Your task to perform on an android device: Open battery settings Image 0: 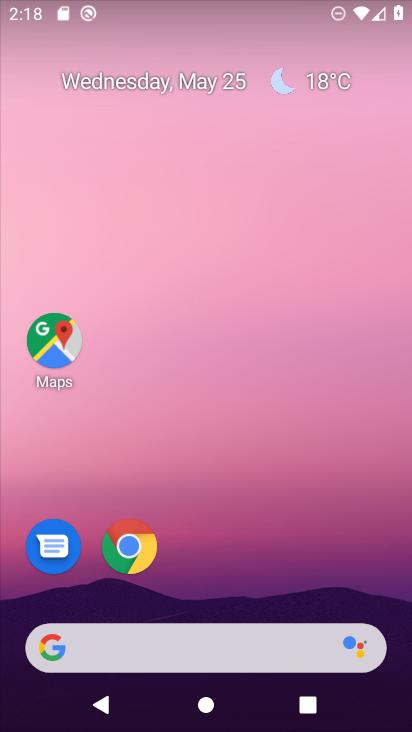
Step 0: drag from (214, 569) to (313, 8)
Your task to perform on an android device: Open battery settings Image 1: 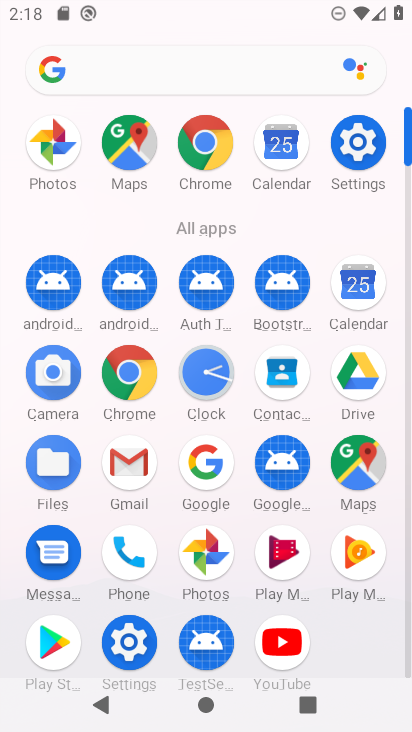
Step 1: click (115, 640)
Your task to perform on an android device: Open battery settings Image 2: 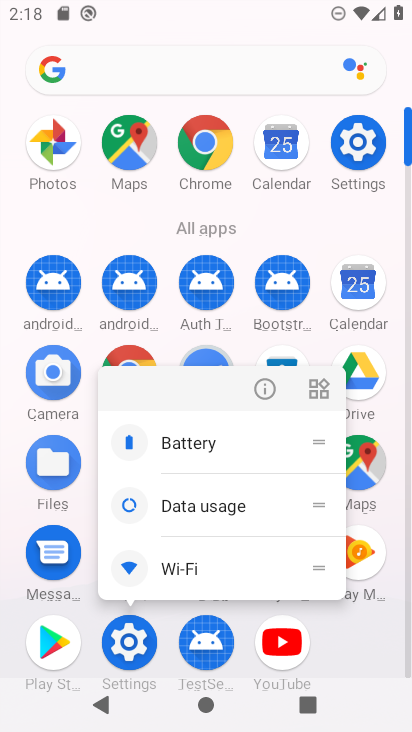
Step 2: click (100, 649)
Your task to perform on an android device: Open battery settings Image 3: 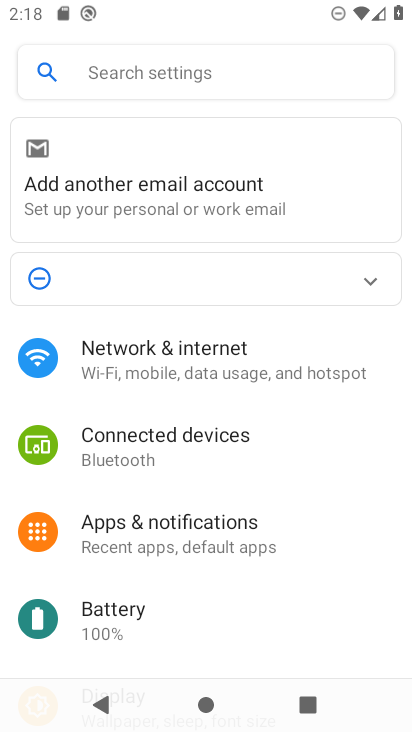
Step 3: drag from (166, 530) to (205, 355)
Your task to perform on an android device: Open battery settings Image 4: 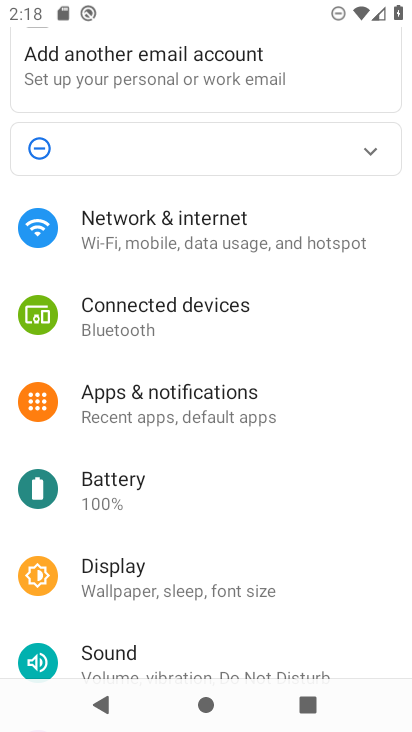
Step 4: click (152, 488)
Your task to perform on an android device: Open battery settings Image 5: 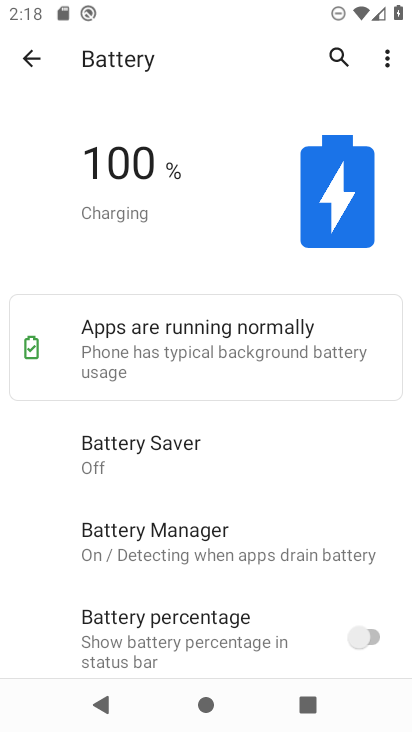
Step 5: task complete